Your task to perform on an android device: star an email in the gmail app Image 0: 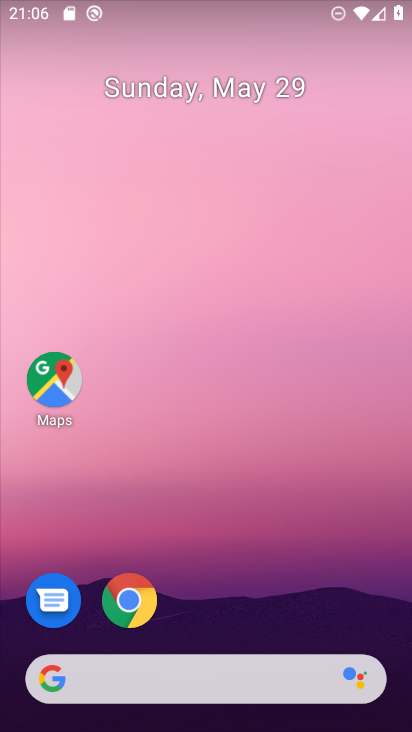
Step 0: drag from (350, 567) to (338, 213)
Your task to perform on an android device: star an email in the gmail app Image 1: 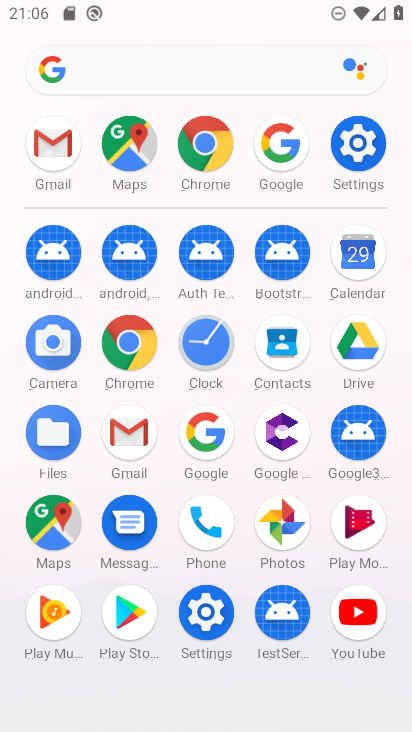
Step 1: click (122, 441)
Your task to perform on an android device: star an email in the gmail app Image 2: 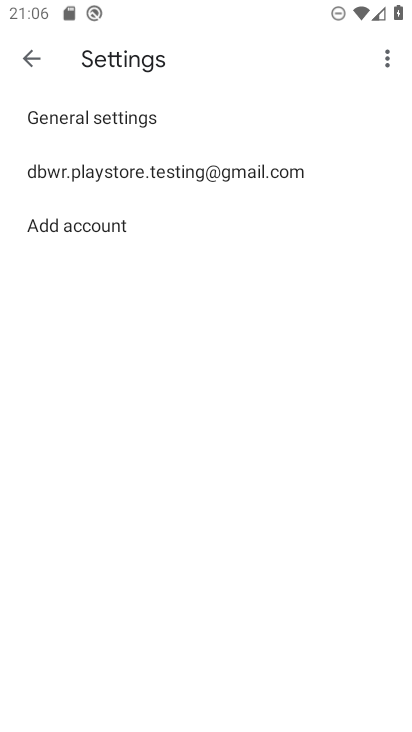
Step 2: click (248, 171)
Your task to perform on an android device: star an email in the gmail app Image 3: 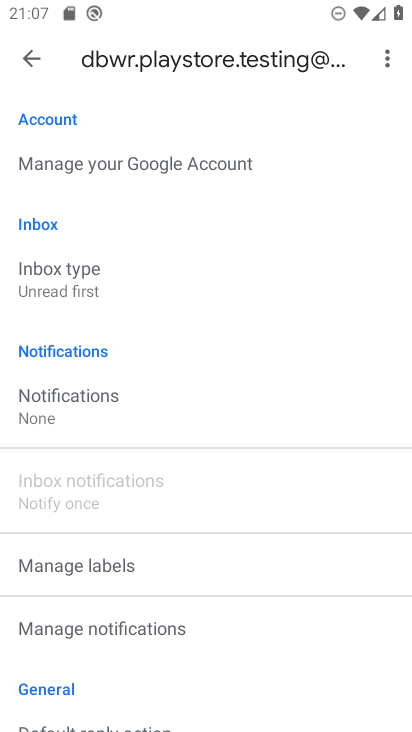
Step 3: click (27, 52)
Your task to perform on an android device: star an email in the gmail app Image 4: 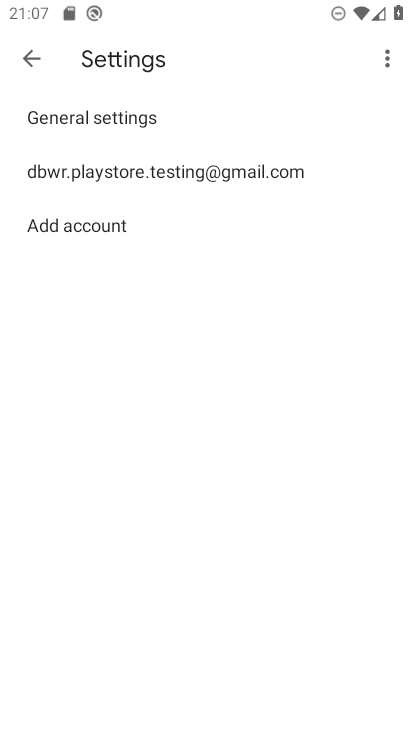
Step 4: click (33, 62)
Your task to perform on an android device: star an email in the gmail app Image 5: 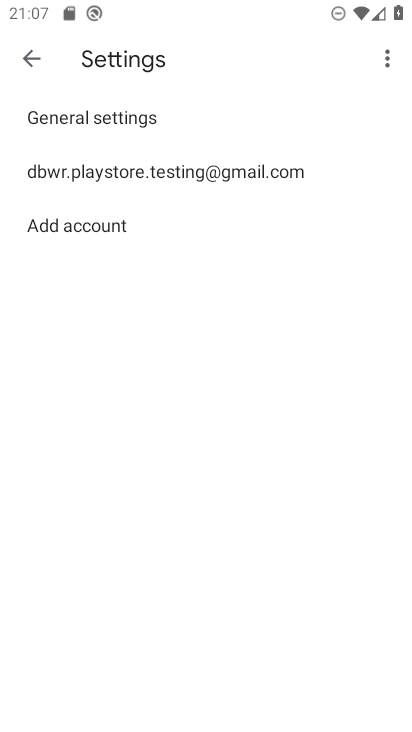
Step 5: click (31, 59)
Your task to perform on an android device: star an email in the gmail app Image 6: 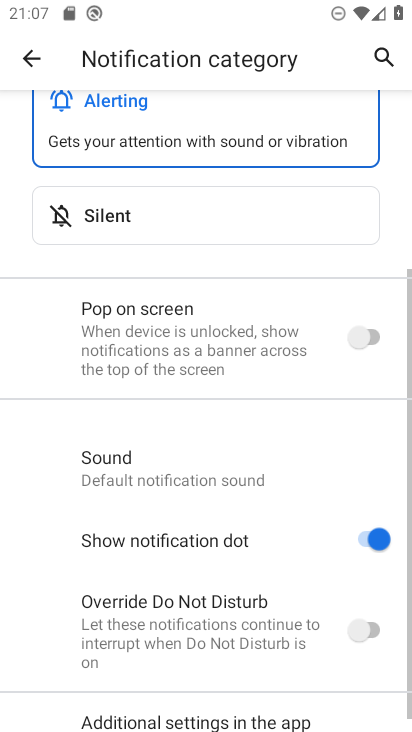
Step 6: click (30, 67)
Your task to perform on an android device: star an email in the gmail app Image 7: 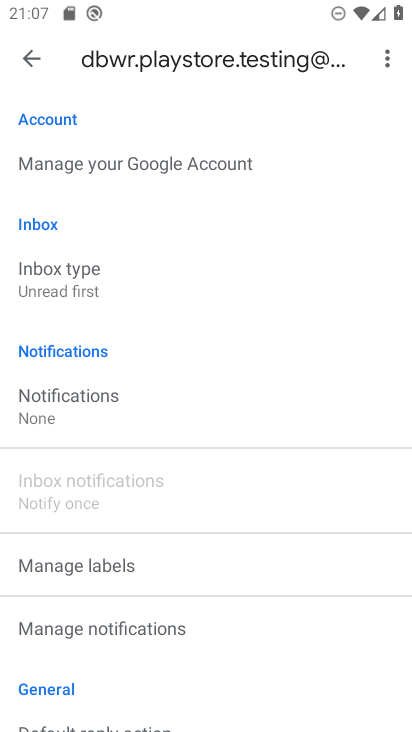
Step 7: click (30, 67)
Your task to perform on an android device: star an email in the gmail app Image 8: 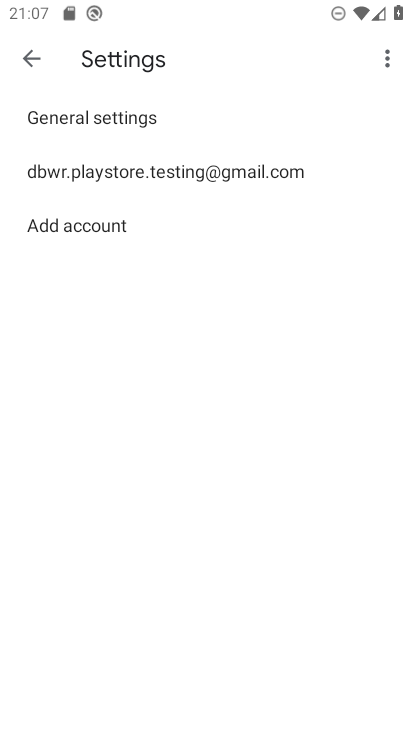
Step 8: click (40, 75)
Your task to perform on an android device: star an email in the gmail app Image 9: 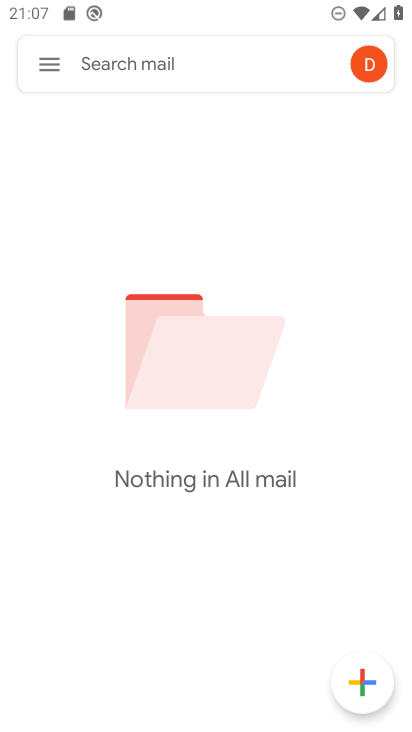
Step 9: task complete